Your task to perform on an android device: turn on showing notifications on the lock screen Image 0: 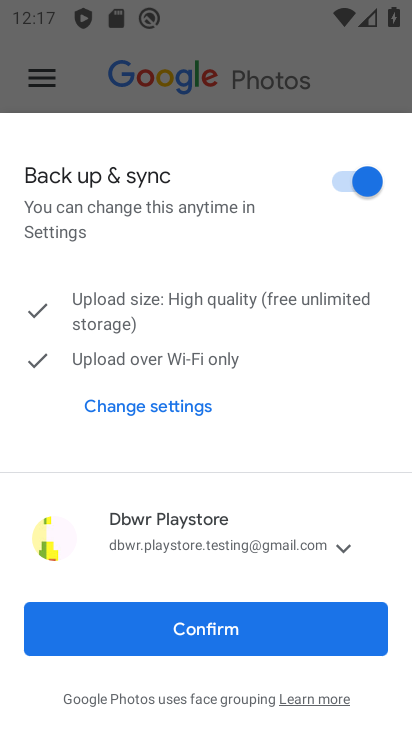
Step 0: press home button
Your task to perform on an android device: turn on showing notifications on the lock screen Image 1: 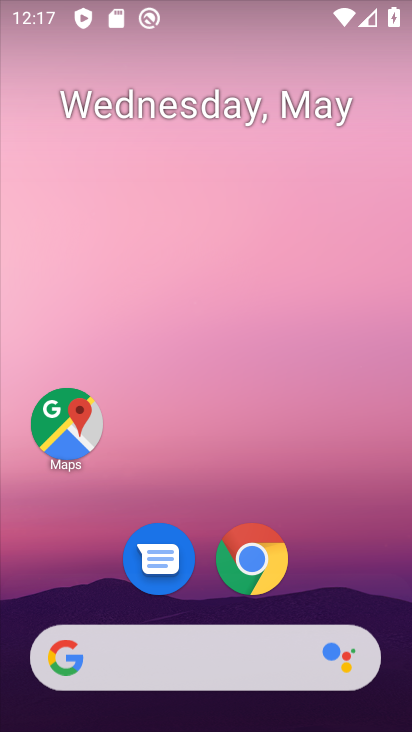
Step 1: drag from (188, 621) to (152, 119)
Your task to perform on an android device: turn on showing notifications on the lock screen Image 2: 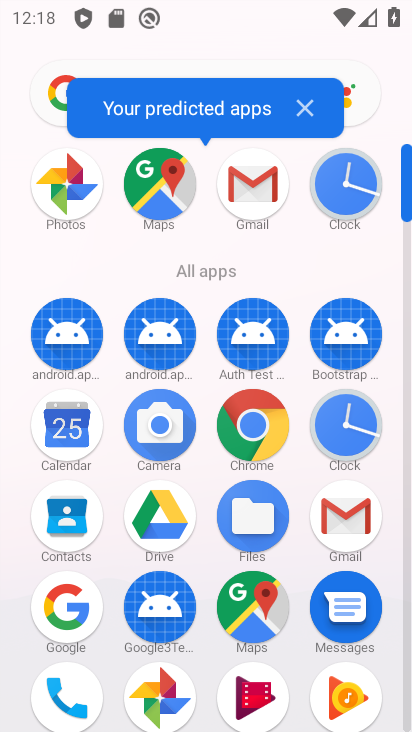
Step 2: drag from (114, 638) to (95, 184)
Your task to perform on an android device: turn on showing notifications on the lock screen Image 3: 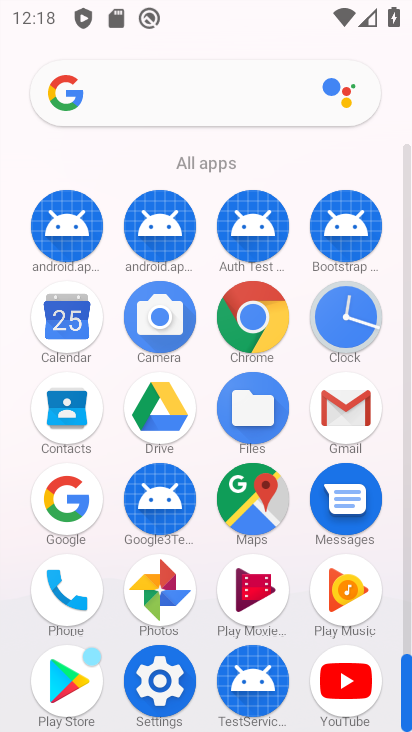
Step 3: click (144, 701)
Your task to perform on an android device: turn on showing notifications on the lock screen Image 4: 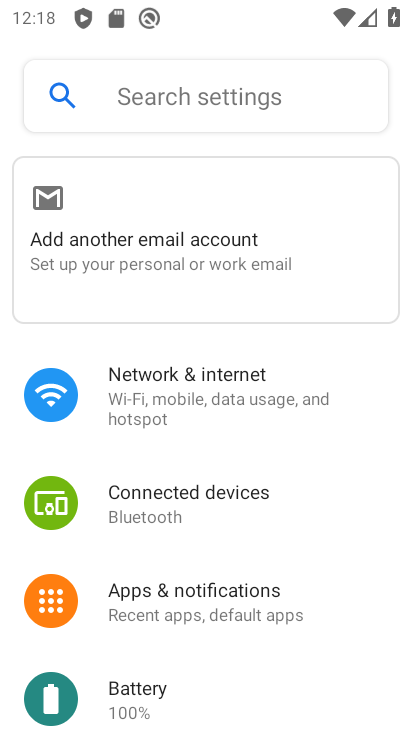
Step 4: click (196, 595)
Your task to perform on an android device: turn on showing notifications on the lock screen Image 5: 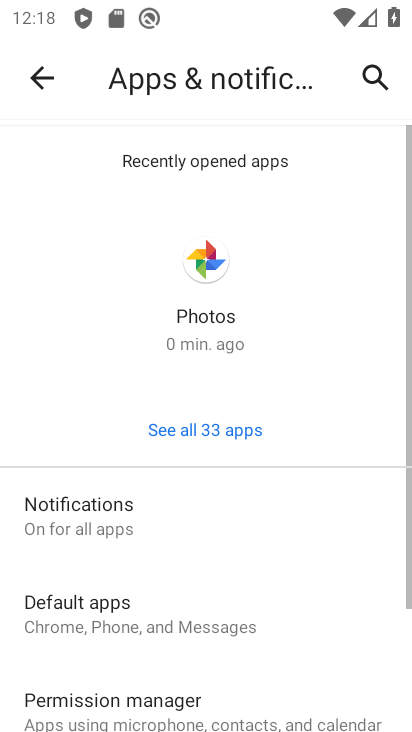
Step 5: click (153, 520)
Your task to perform on an android device: turn on showing notifications on the lock screen Image 6: 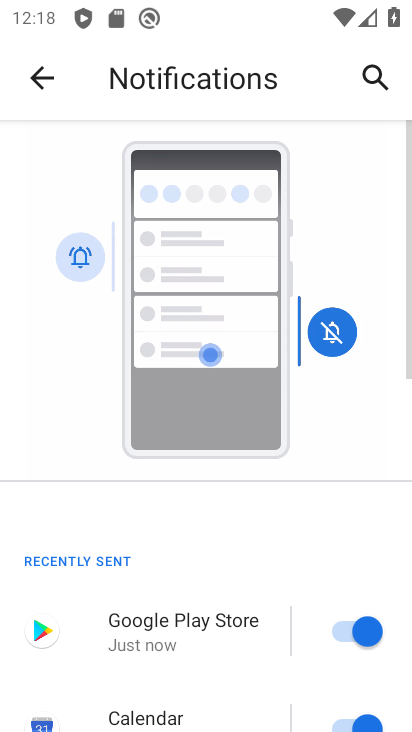
Step 6: drag from (153, 520) to (95, 102)
Your task to perform on an android device: turn on showing notifications on the lock screen Image 7: 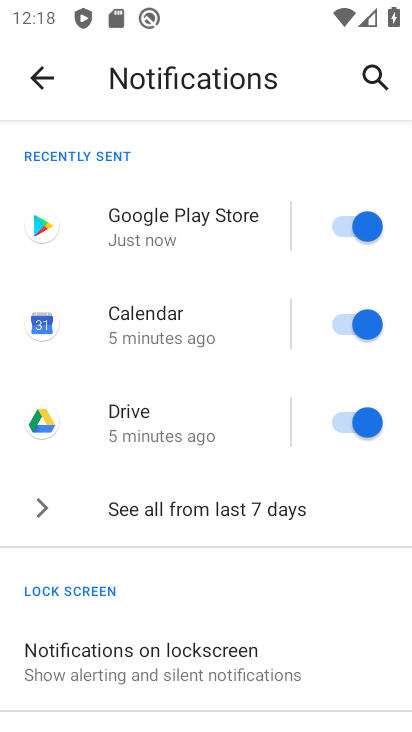
Step 7: click (131, 667)
Your task to perform on an android device: turn on showing notifications on the lock screen Image 8: 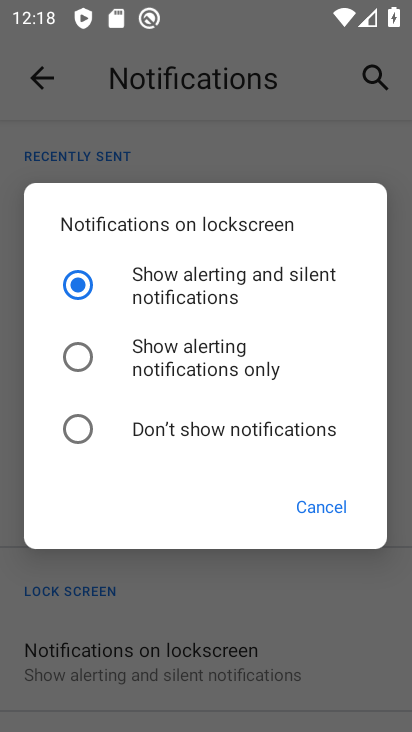
Step 8: click (153, 280)
Your task to perform on an android device: turn on showing notifications on the lock screen Image 9: 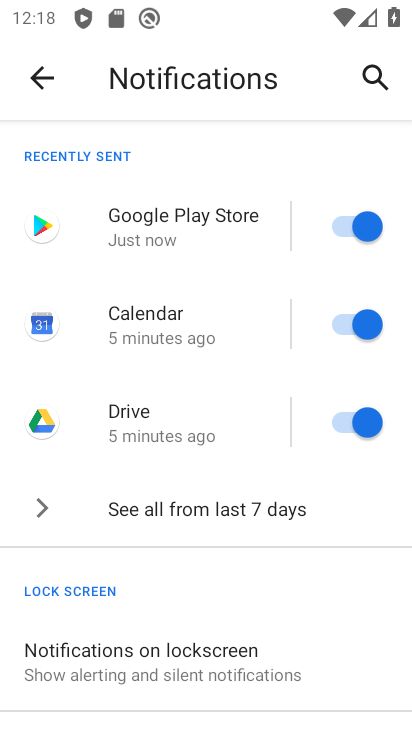
Step 9: task complete